Your task to perform on an android device: Open battery settings Image 0: 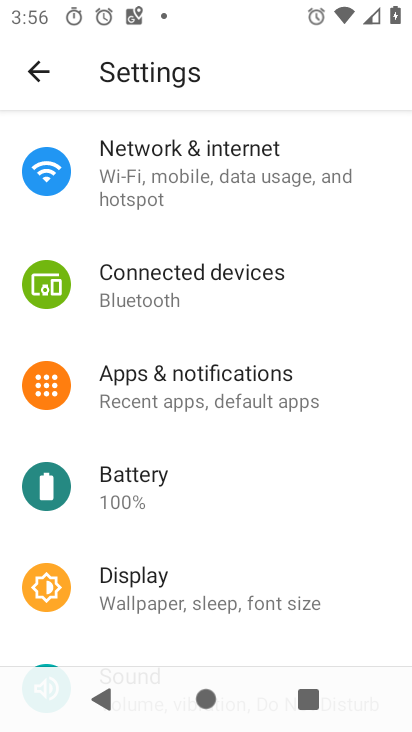
Step 0: click (122, 482)
Your task to perform on an android device: Open battery settings Image 1: 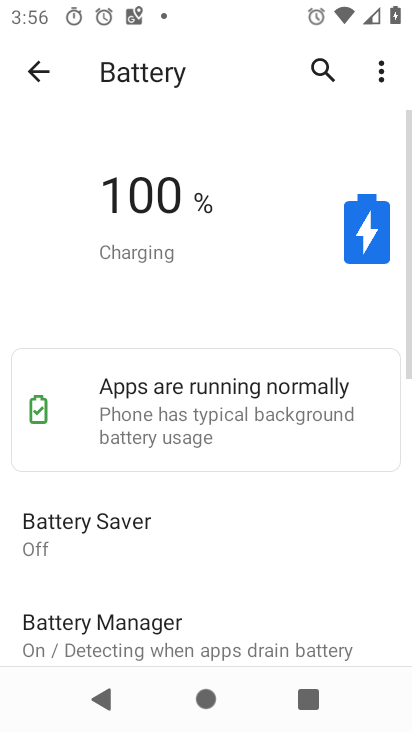
Step 1: task complete